Your task to perform on an android device: Go to accessibility settings Image 0: 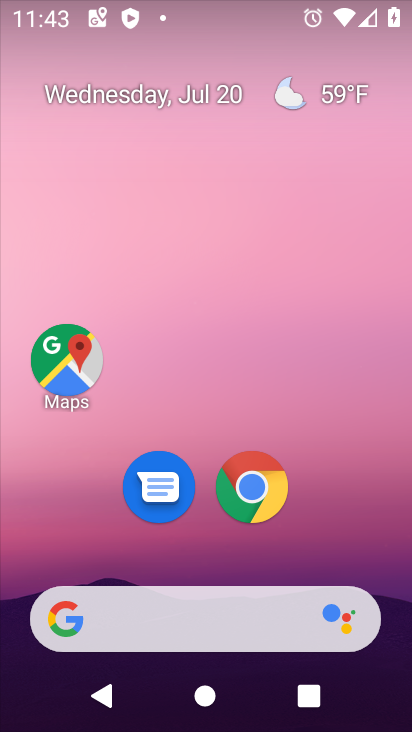
Step 0: drag from (347, 504) to (356, 102)
Your task to perform on an android device: Go to accessibility settings Image 1: 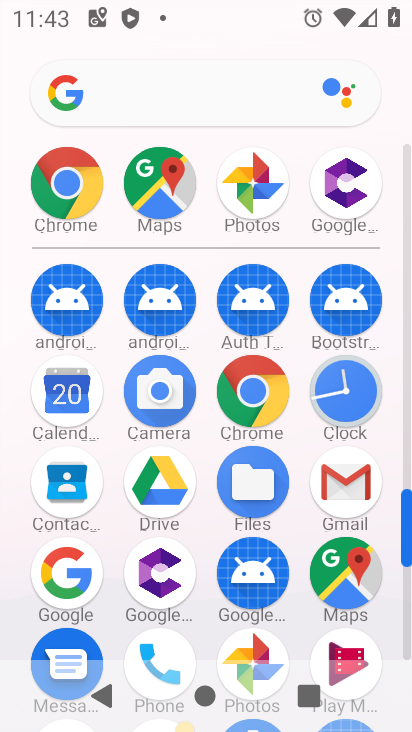
Step 1: drag from (408, 450) to (408, 346)
Your task to perform on an android device: Go to accessibility settings Image 2: 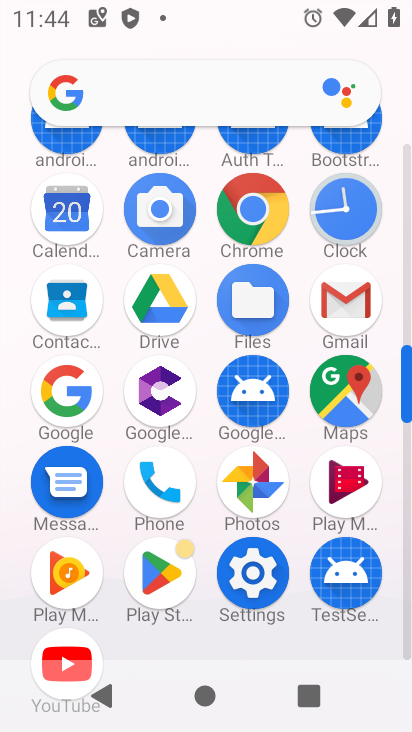
Step 2: click (258, 569)
Your task to perform on an android device: Go to accessibility settings Image 3: 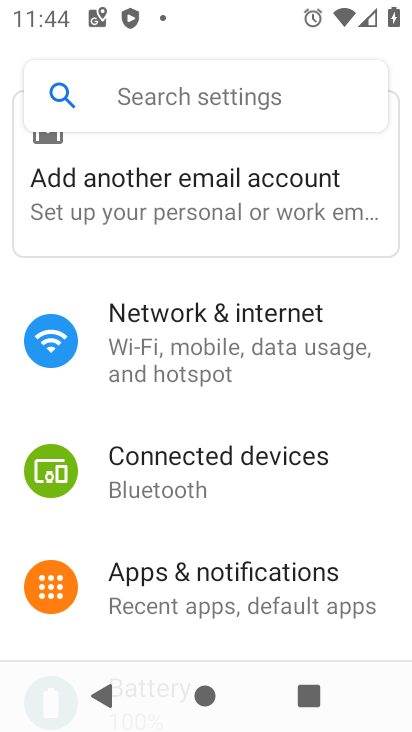
Step 3: drag from (367, 492) to (373, 436)
Your task to perform on an android device: Go to accessibility settings Image 4: 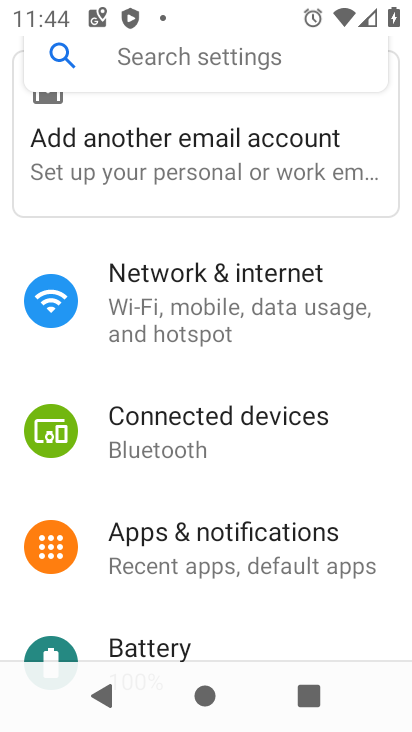
Step 4: drag from (369, 490) to (375, 426)
Your task to perform on an android device: Go to accessibility settings Image 5: 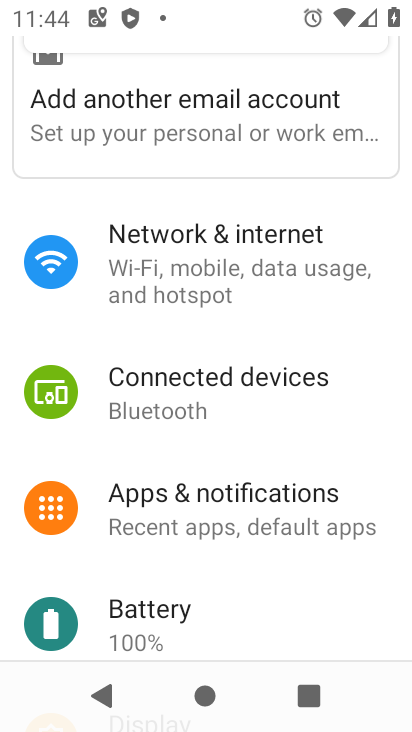
Step 5: drag from (371, 500) to (372, 413)
Your task to perform on an android device: Go to accessibility settings Image 6: 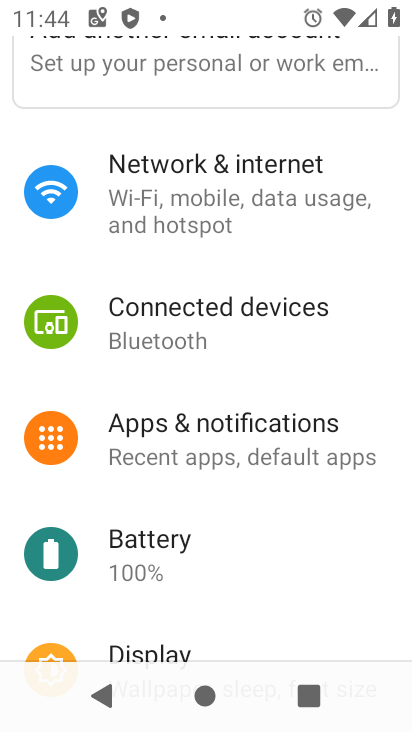
Step 6: drag from (371, 501) to (371, 429)
Your task to perform on an android device: Go to accessibility settings Image 7: 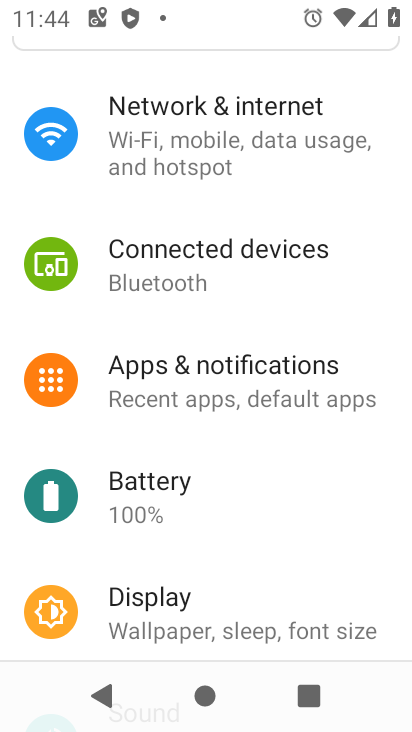
Step 7: drag from (369, 515) to (370, 437)
Your task to perform on an android device: Go to accessibility settings Image 8: 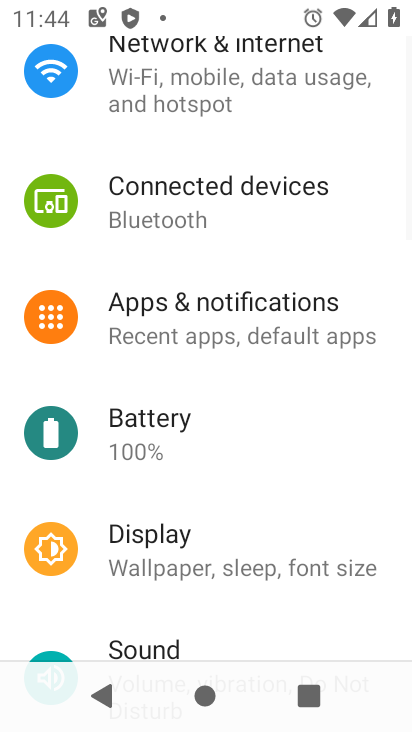
Step 8: drag from (370, 511) to (372, 431)
Your task to perform on an android device: Go to accessibility settings Image 9: 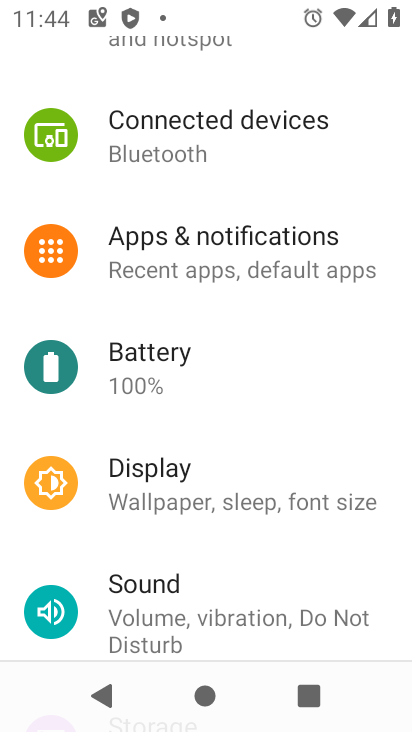
Step 9: drag from (364, 546) to (369, 474)
Your task to perform on an android device: Go to accessibility settings Image 10: 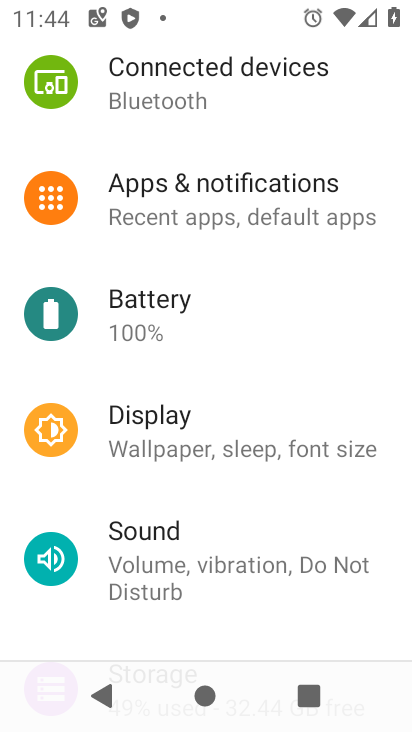
Step 10: drag from (371, 541) to (373, 462)
Your task to perform on an android device: Go to accessibility settings Image 11: 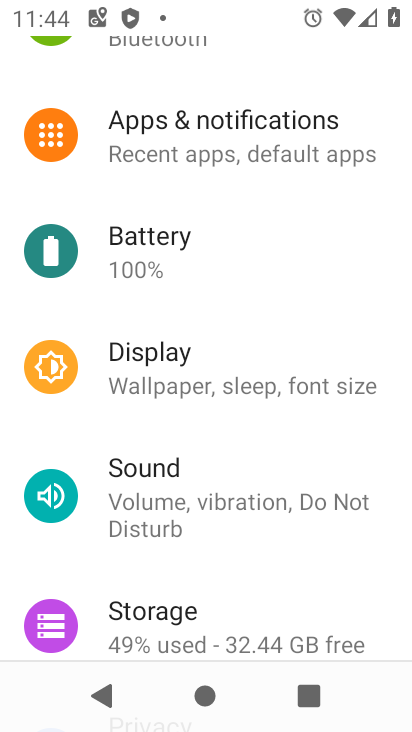
Step 11: drag from (369, 552) to (374, 473)
Your task to perform on an android device: Go to accessibility settings Image 12: 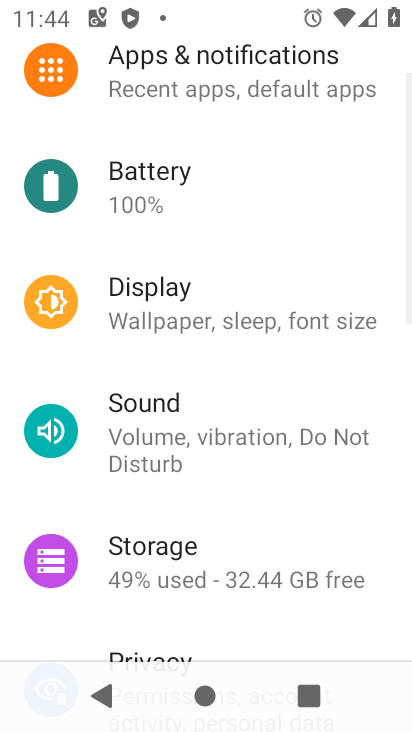
Step 12: drag from (369, 552) to (377, 468)
Your task to perform on an android device: Go to accessibility settings Image 13: 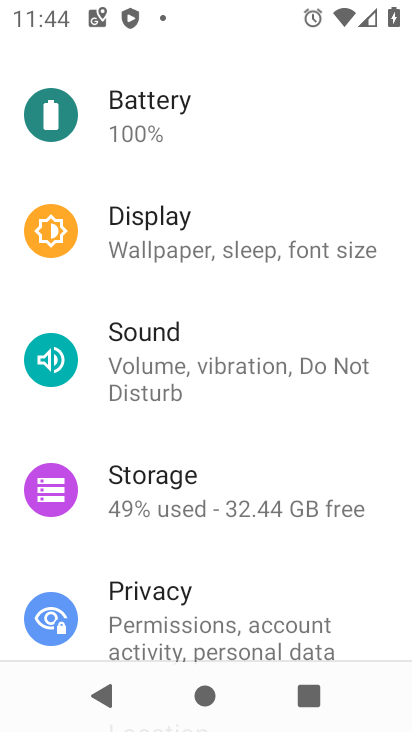
Step 13: drag from (372, 548) to (374, 457)
Your task to perform on an android device: Go to accessibility settings Image 14: 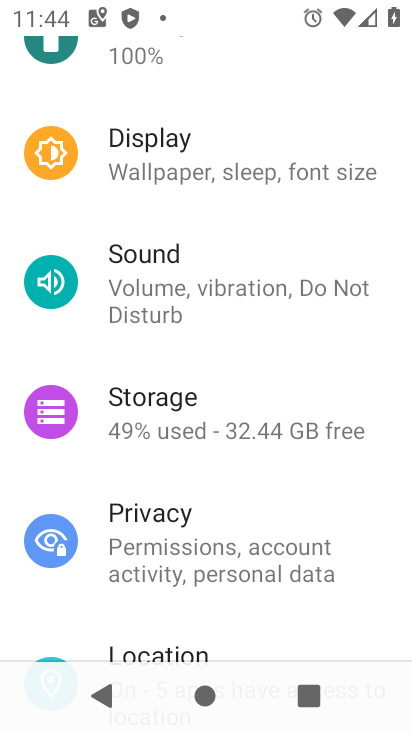
Step 14: drag from (362, 571) to (374, 494)
Your task to perform on an android device: Go to accessibility settings Image 15: 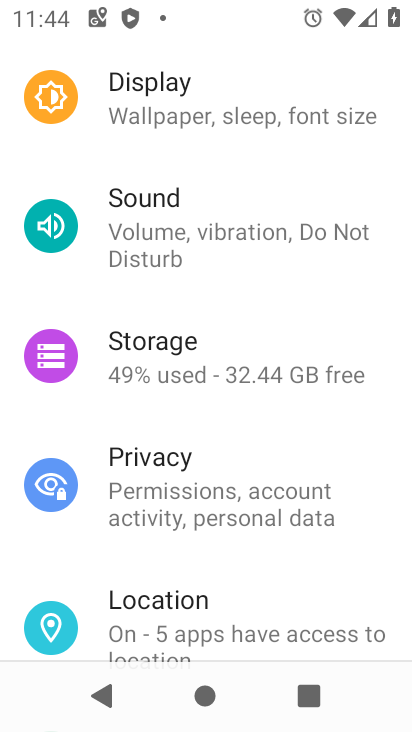
Step 15: drag from (367, 540) to (376, 456)
Your task to perform on an android device: Go to accessibility settings Image 16: 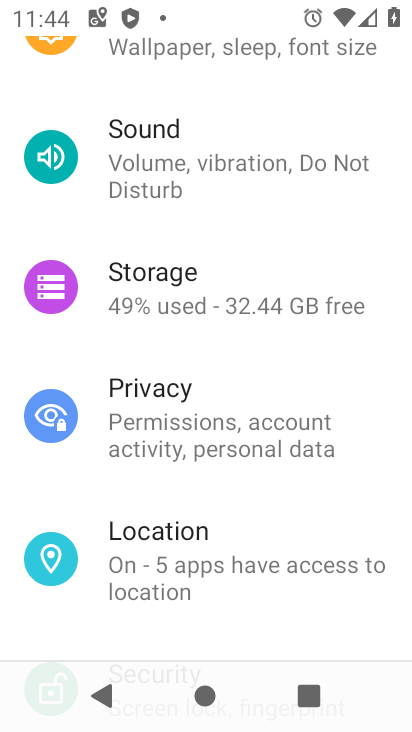
Step 16: drag from (362, 592) to (376, 447)
Your task to perform on an android device: Go to accessibility settings Image 17: 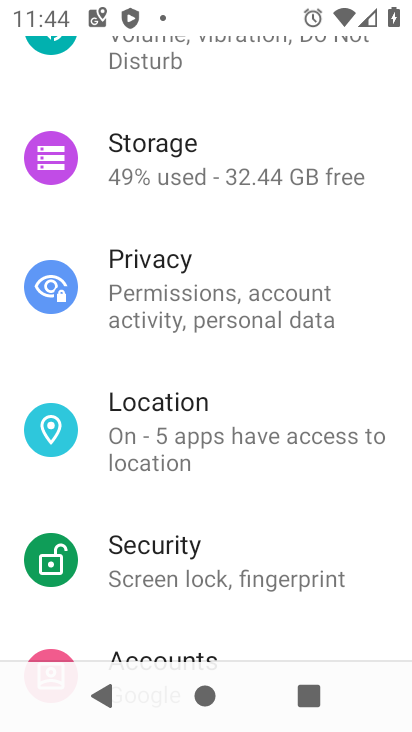
Step 17: drag from (358, 553) to (370, 433)
Your task to perform on an android device: Go to accessibility settings Image 18: 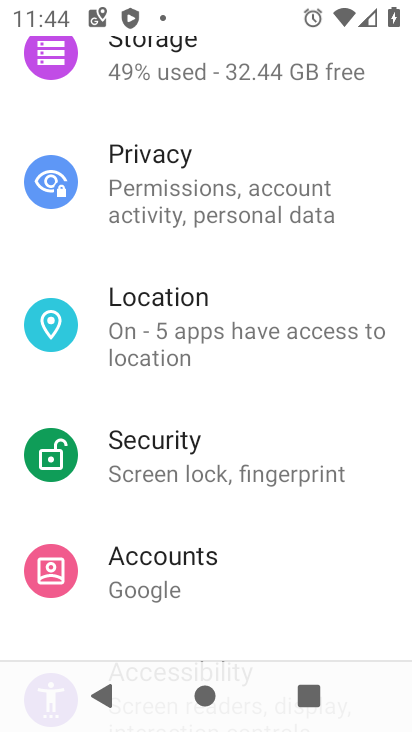
Step 18: drag from (341, 545) to (339, 401)
Your task to perform on an android device: Go to accessibility settings Image 19: 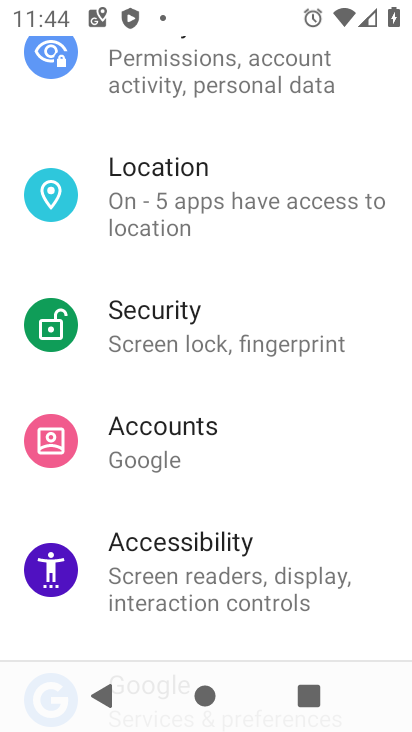
Step 19: click (303, 600)
Your task to perform on an android device: Go to accessibility settings Image 20: 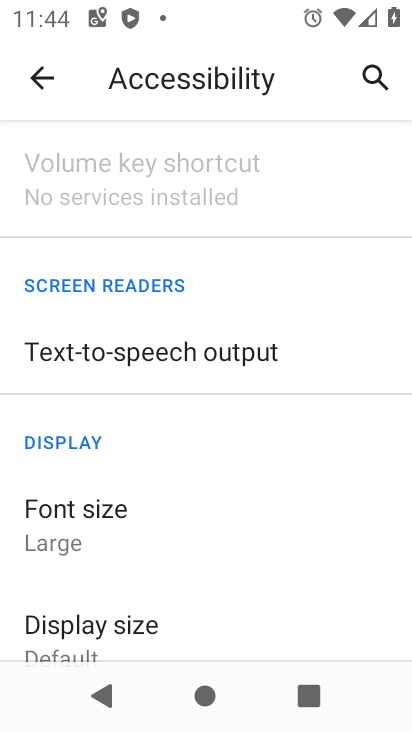
Step 20: task complete